Your task to perform on an android device: refresh tabs in the chrome app Image 0: 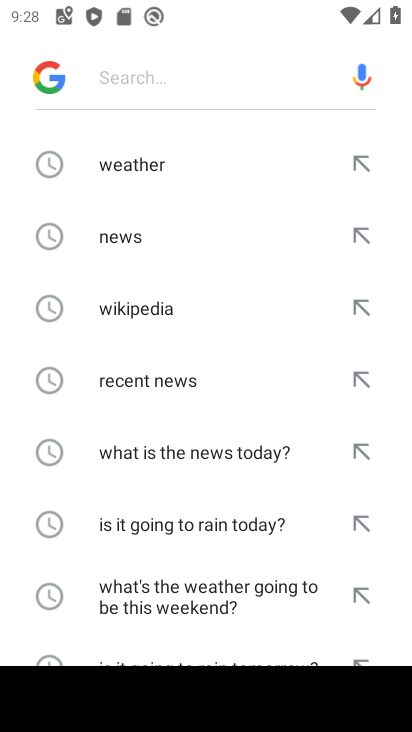
Step 0: press home button
Your task to perform on an android device: refresh tabs in the chrome app Image 1: 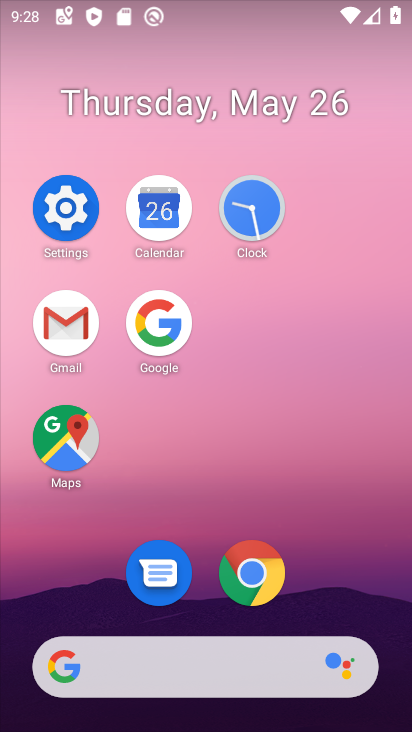
Step 1: click (256, 590)
Your task to perform on an android device: refresh tabs in the chrome app Image 2: 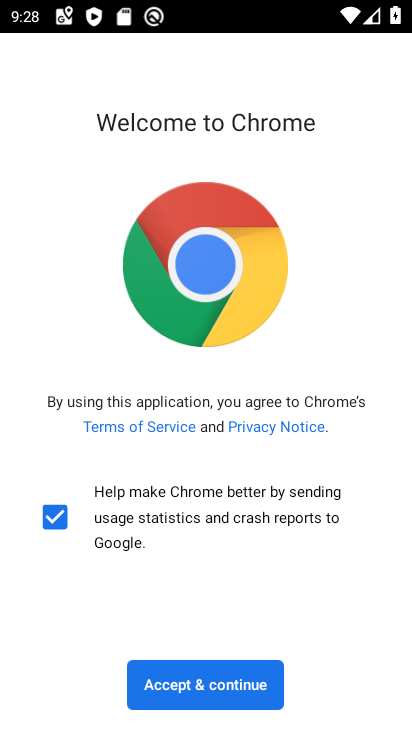
Step 2: click (264, 665)
Your task to perform on an android device: refresh tabs in the chrome app Image 3: 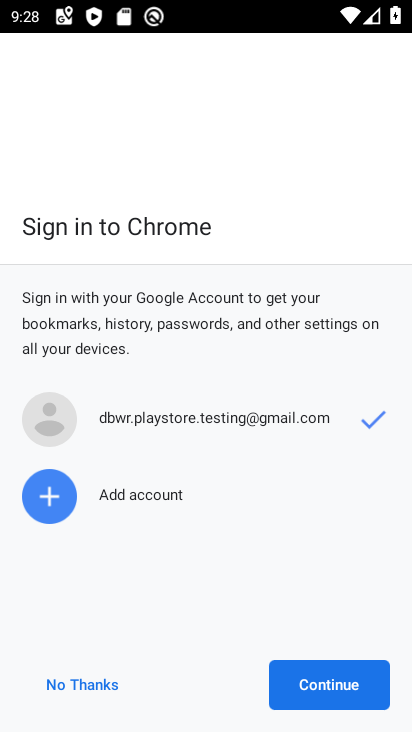
Step 3: click (348, 679)
Your task to perform on an android device: refresh tabs in the chrome app Image 4: 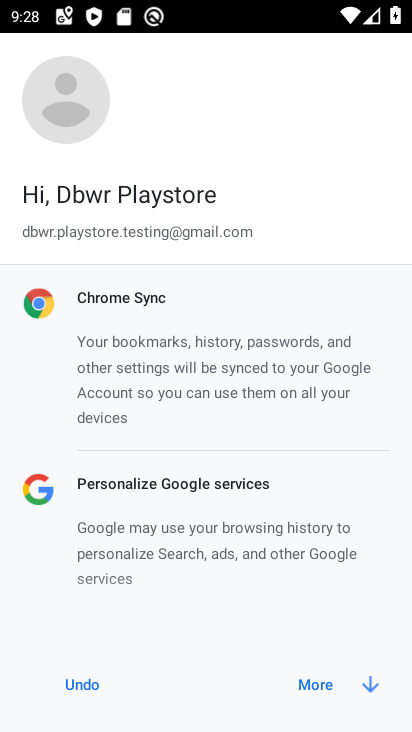
Step 4: click (357, 697)
Your task to perform on an android device: refresh tabs in the chrome app Image 5: 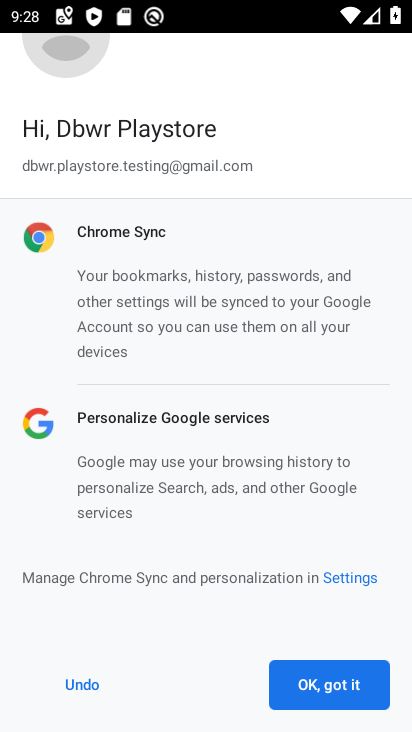
Step 5: click (353, 690)
Your task to perform on an android device: refresh tabs in the chrome app Image 6: 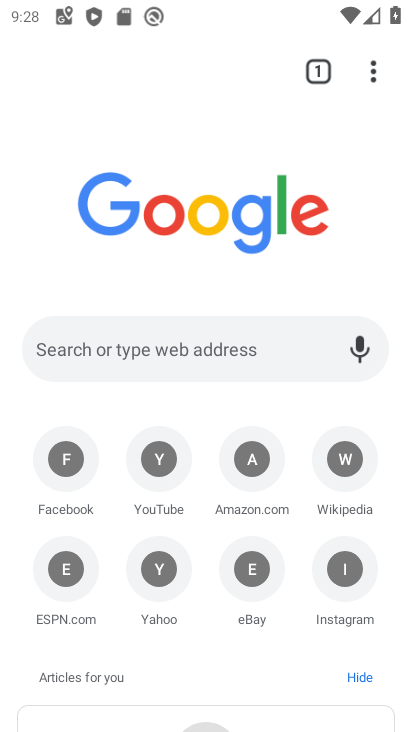
Step 6: click (371, 60)
Your task to perform on an android device: refresh tabs in the chrome app Image 7: 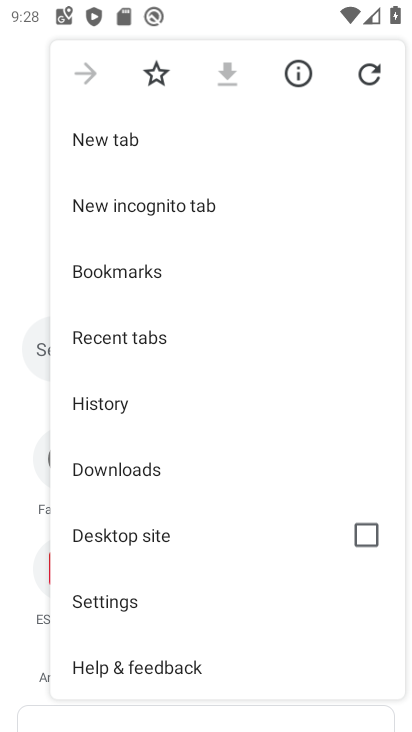
Step 7: click (373, 70)
Your task to perform on an android device: refresh tabs in the chrome app Image 8: 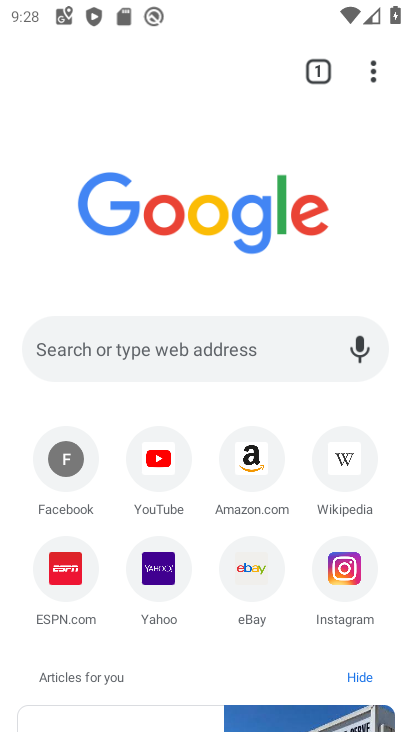
Step 8: task complete